Your task to perform on an android device: make emails show in primary in the gmail app Image 0: 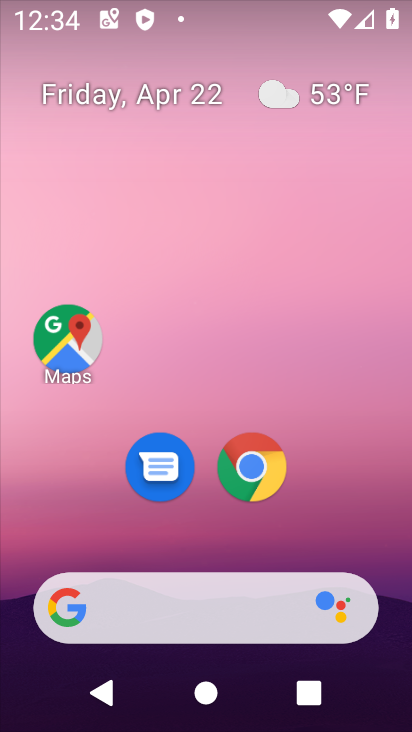
Step 0: drag from (389, 616) to (337, 170)
Your task to perform on an android device: make emails show in primary in the gmail app Image 1: 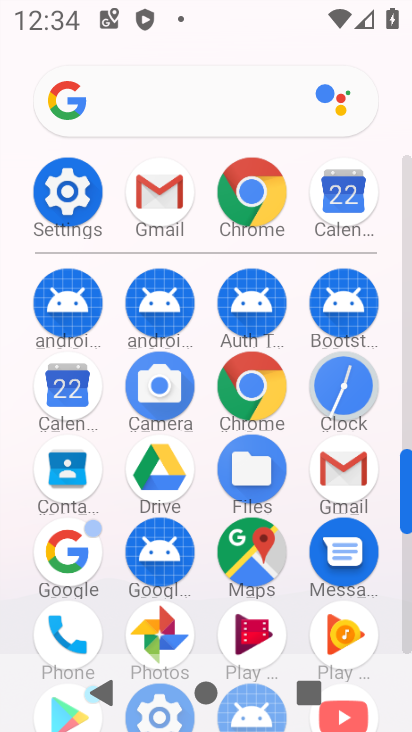
Step 1: click (405, 629)
Your task to perform on an android device: make emails show in primary in the gmail app Image 2: 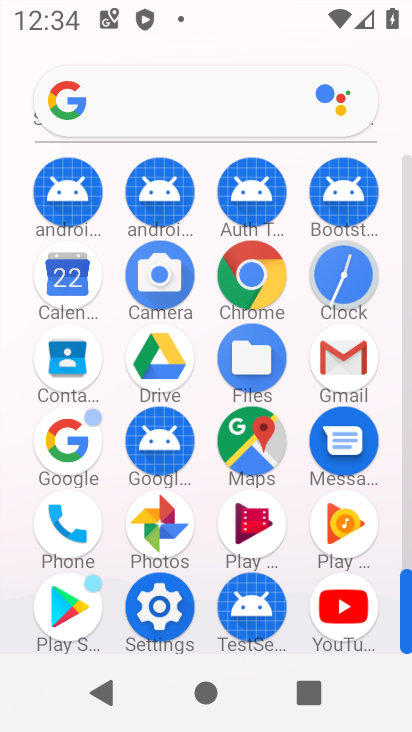
Step 2: click (339, 349)
Your task to perform on an android device: make emails show in primary in the gmail app Image 3: 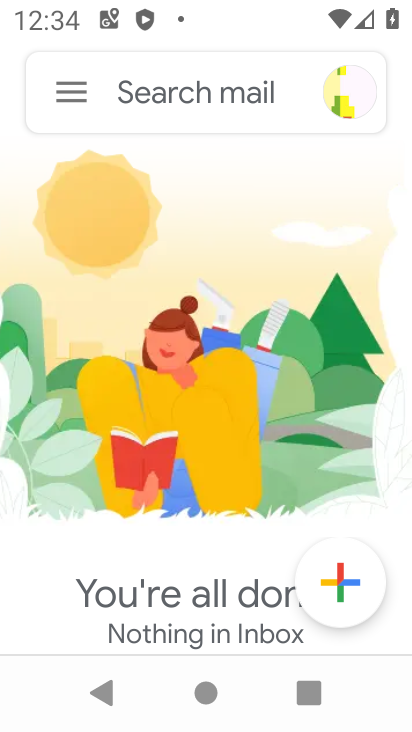
Step 3: click (50, 78)
Your task to perform on an android device: make emails show in primary in the gmail app Image 4: 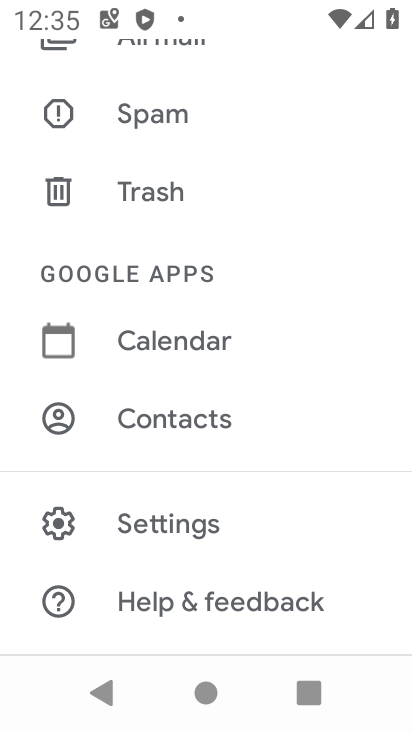
Step 4: click (172, 516)
Your task to perform on an android device: make emails show in primary in the gmail app Image 5: 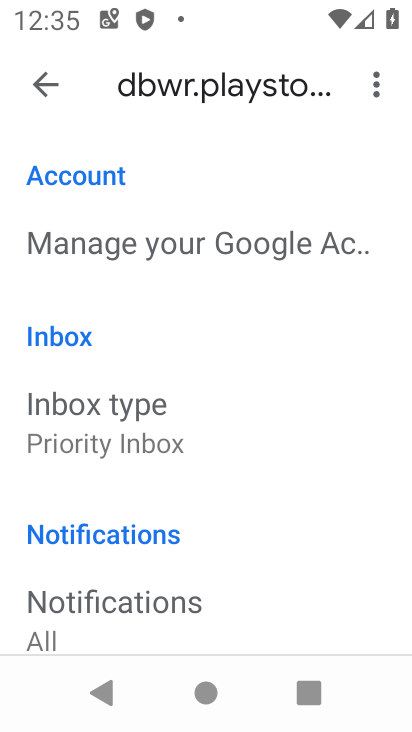
Step 5: click (75, 403)
Your task to perform on an android device: make emails show in primary in the gmail app Image 6: 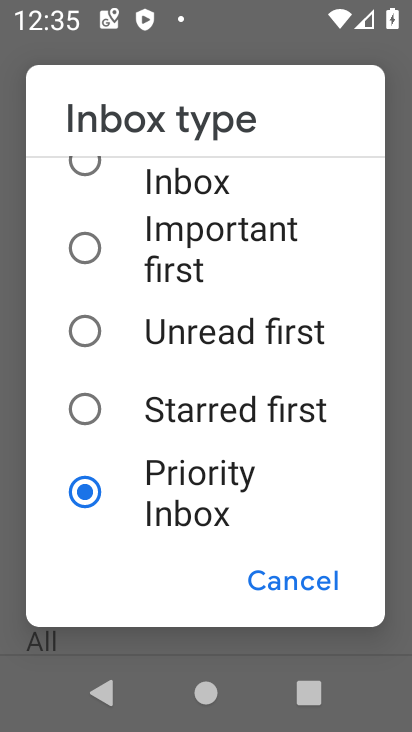
Step 6: drag from (159, 286) to (163, 457)
Your task to perform on an android device: make emails show in primary in the gmail app Image 7: 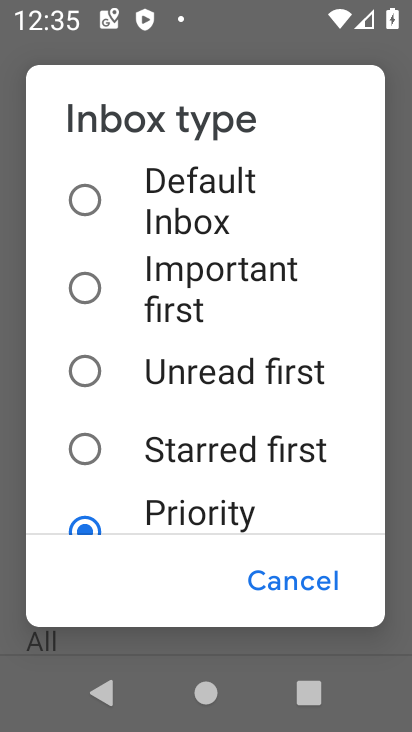
Step 7: click (93, 196)
Your task to perform on an android device: make emails show in primary in the gmail app Image 8: 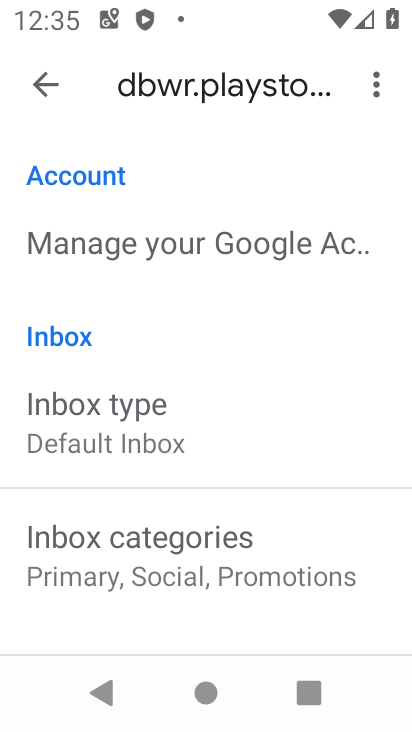
Step 8: click (127, 546)
Your task to perform on an android device: make emails show in primary in the gmail app Image 9: 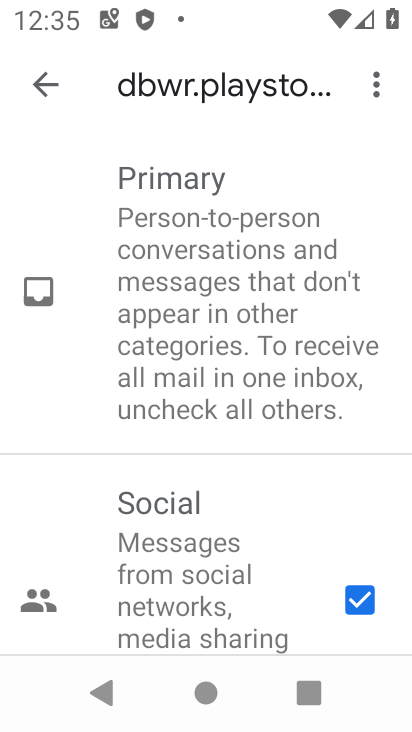
Step 9: drag from (273, 541) to (292, 291)
Your task to perform on an android device: make emails show in primary in the gmail app Image 10: 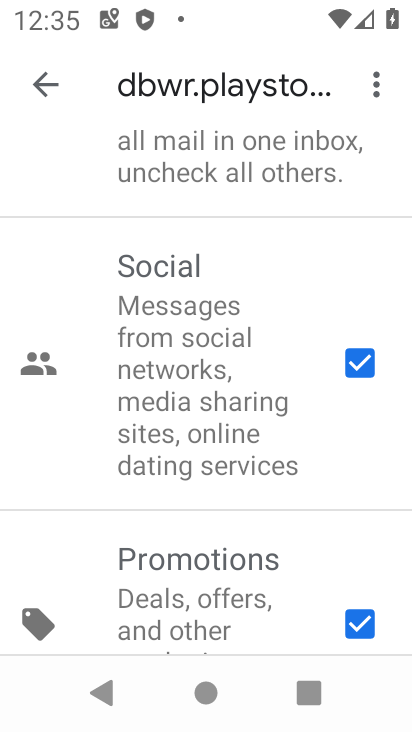
Step 10: click (355, 352)
Your task to perform on an android device: make emails show in primary in the gmail app Image 11: 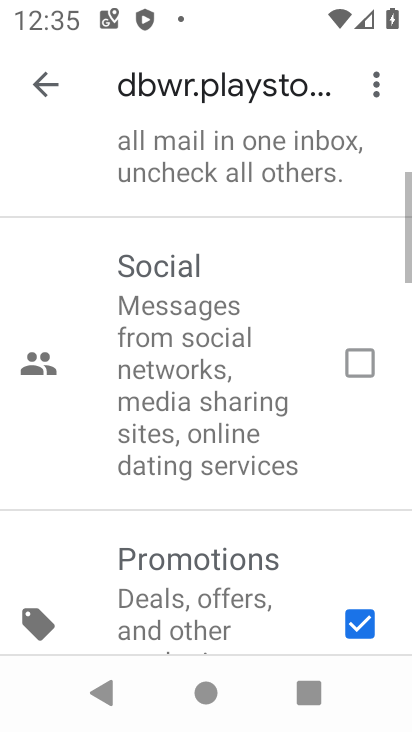
Step 11: click (362, 622)
Your task to perform on an android device: make emails show in primary in the gmail app Image 12: 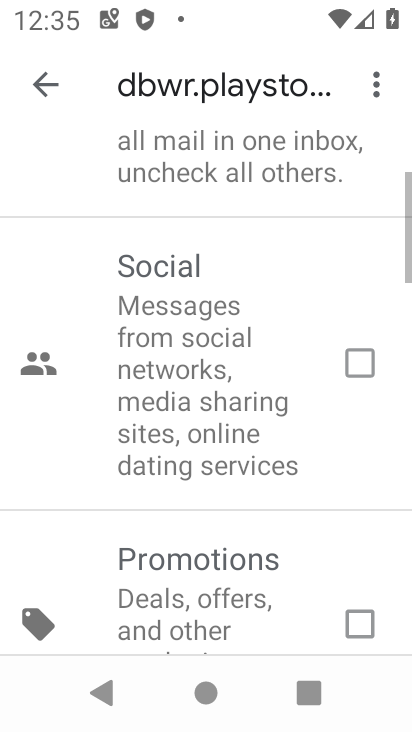
Step 12: task complete